Your task to perform on an android device: remove spam from my inbox in the gmail app Image 0: 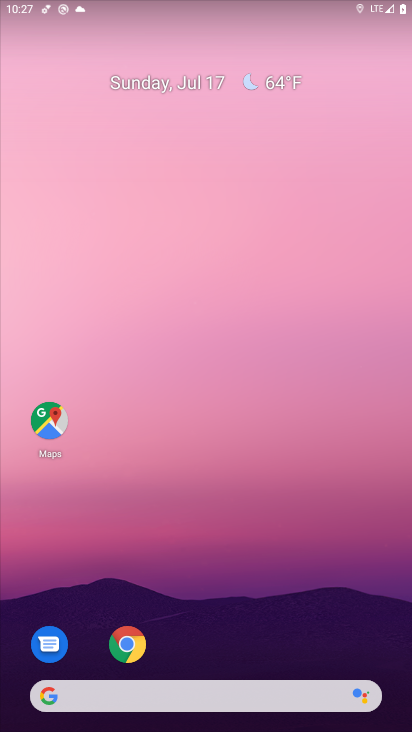
Step 0: press home button
Your task to perform on an android device: remove spam from my inbox in the gmail app Image 1: 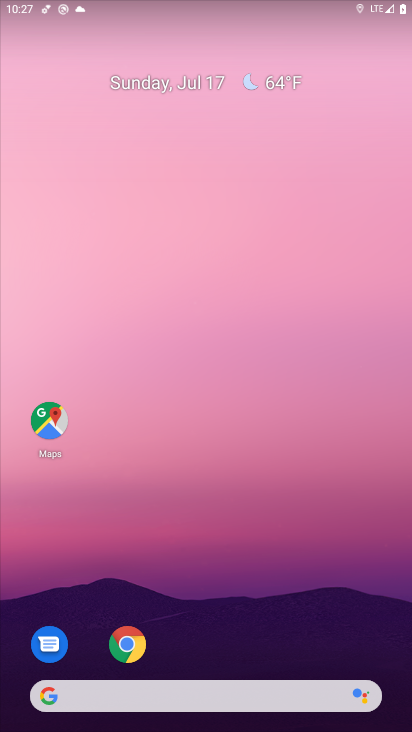
Step 1: drag from (256, 647) to (251, 57)
Your task to perform on an android device: remove spam from my inbox in the gmail app Image 2: 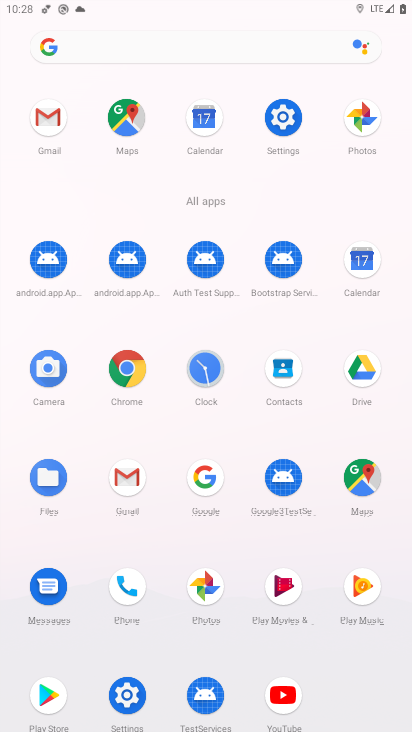
Step 2: click (45, 125)
Your task to perform on an android device: remove spam from my inbox in the gmail app Image 3: 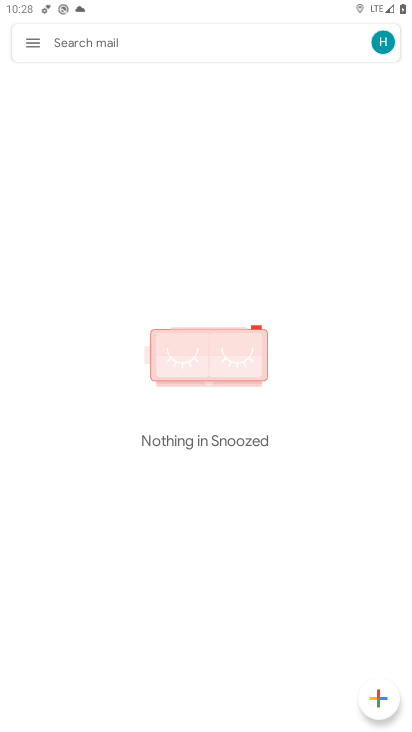
Step 3: click (27, 50)
Your task to perform on an android device: remove spam from my inbox in the gmail app Image 4: 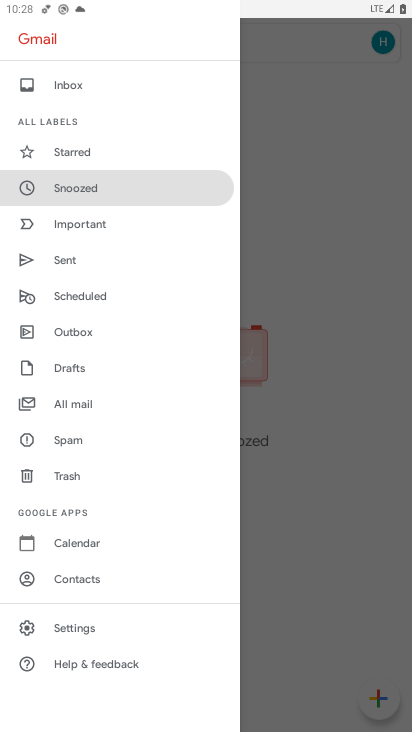
Step 4: click (65, 437)
Your task to perform on an android device: remove spam from my inbox in the gmail app Image 5: 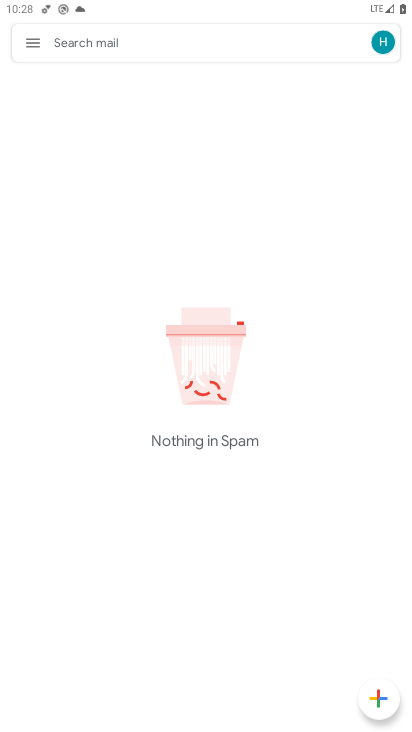
Step 5: task complete